Your task to perform on an android device: Open the phone app and click the voicemail tab. Image 0: 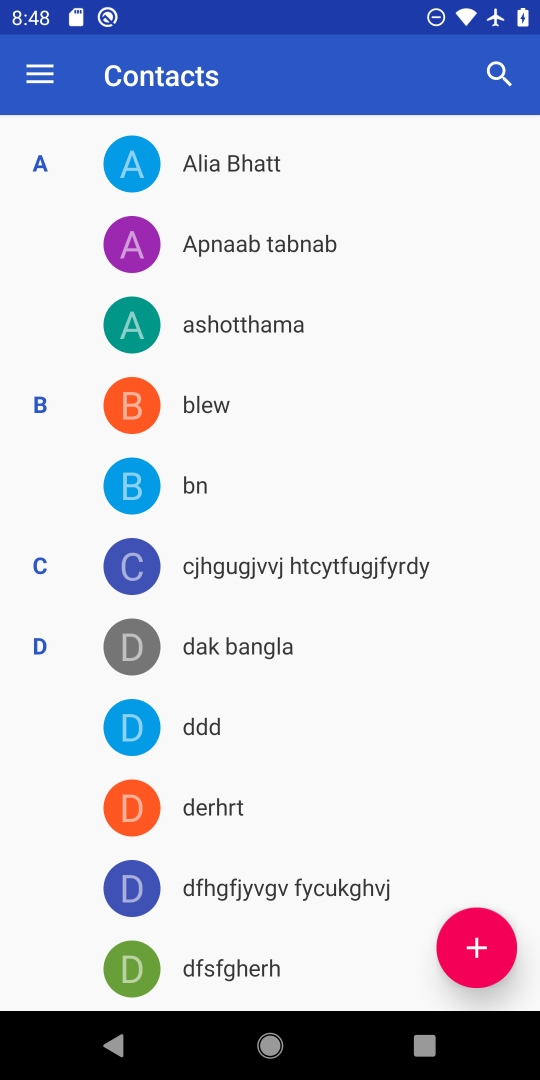
Step 0: press home button
Your task to perform on an android device: Open the phone app and click the voicemail tab. Image 1: 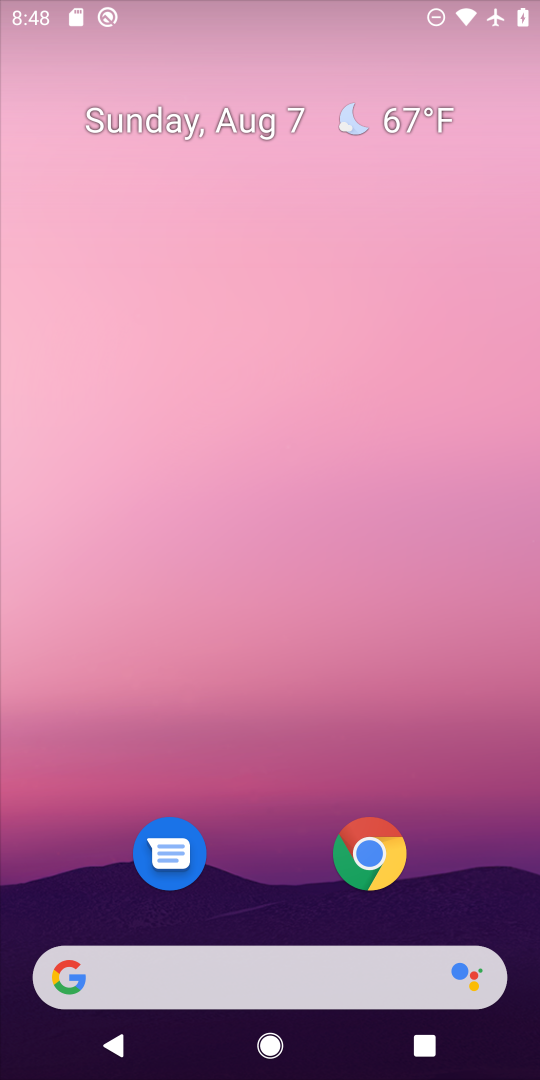
Step 1: drag from (318, 952) to (355, 65)
Your task to perform on an android device: Open the phone app and click the voicemail tab. Image 2: 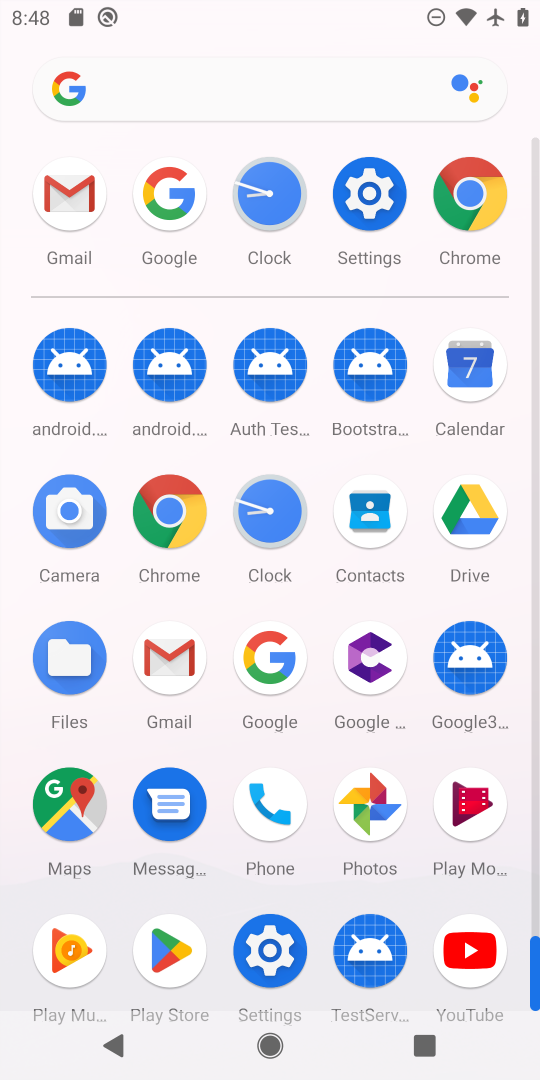
Step 2: click (262, 802)
Your task to perform on an android device: Open the phone app and click the voicemail tab. Image 3: 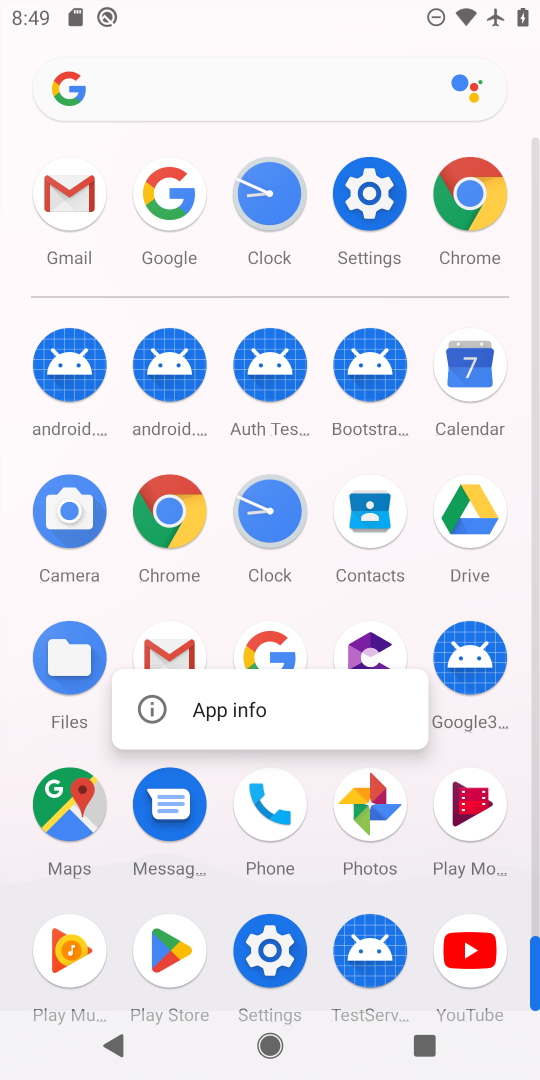
Step 3: click (278, 832)
Your task to perform on an android device: Open the phone app and click the voicemail tab. Image 4: 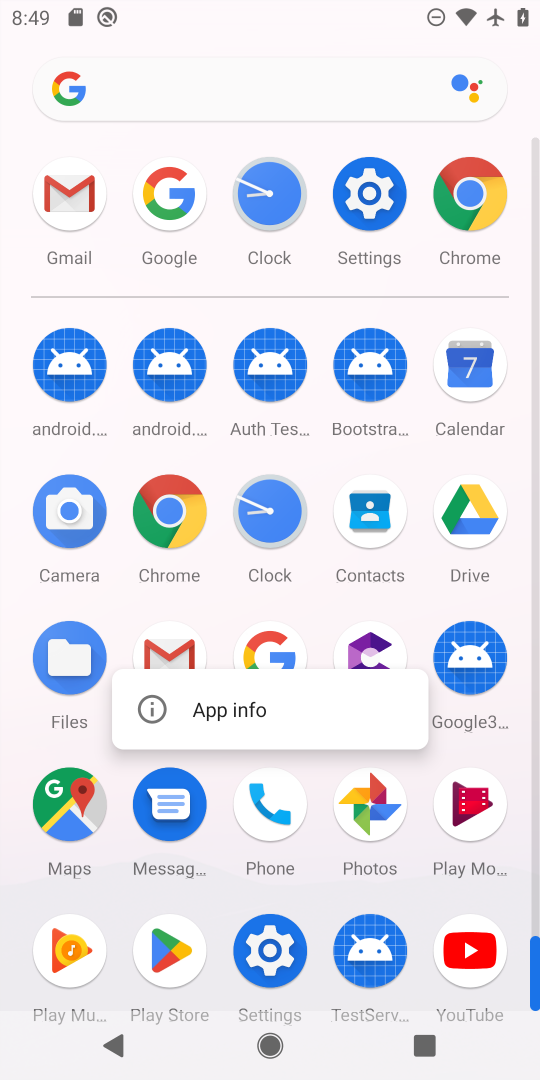
Step 4: click (278, 832)
Your task to perform on an android device: Open the phone app and click the voicemail tab. Image 5: 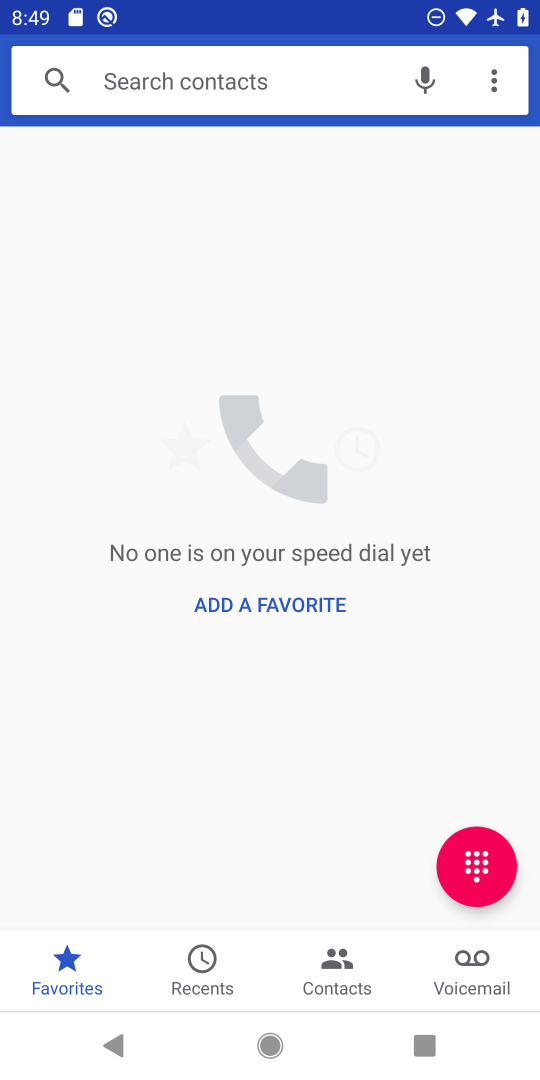
Step 5: click (473, 976)
Your task to perform on an android device: Open the phone app and click the voicemail tab. Image 6: 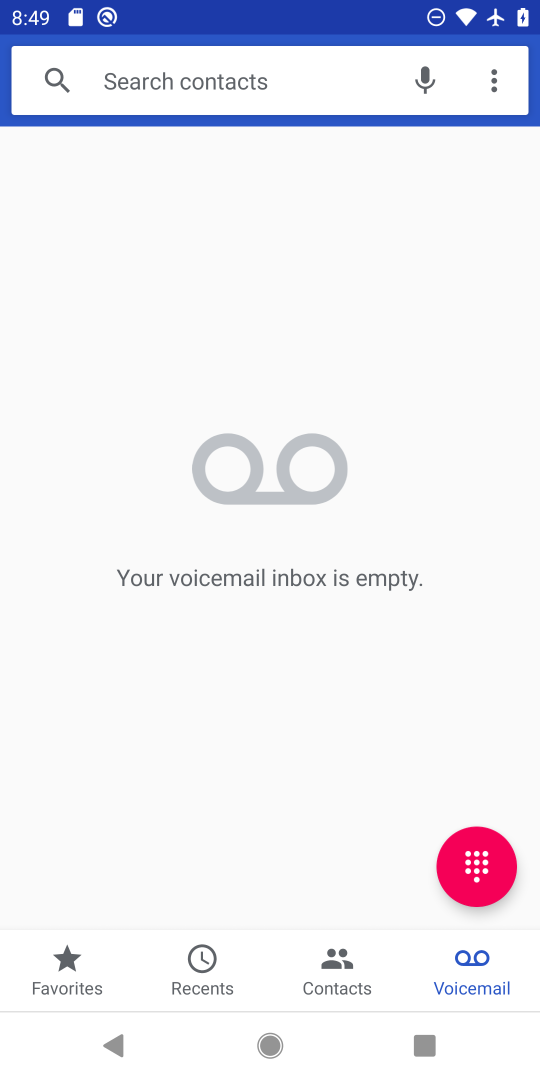
Step 6: task complete